Your task to perform on an android device: open a bookmark in the chrome app Image 0: 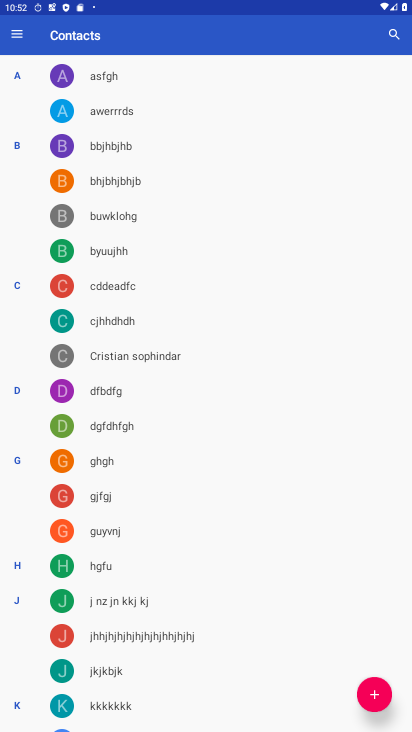
Step 0: press home button
Your task to perform on an android device: open a bookmark in the chrome app Image 1: 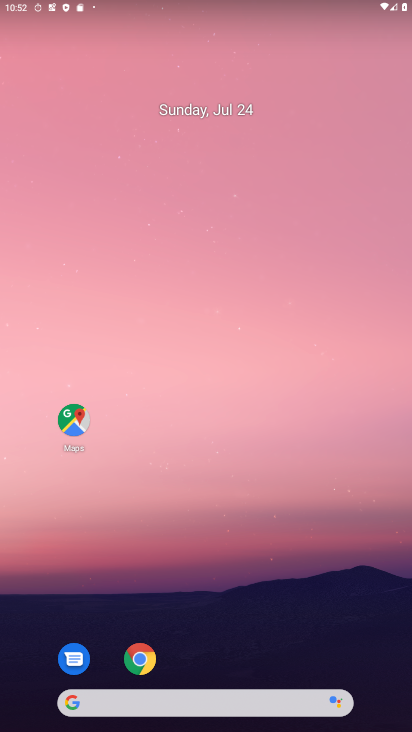
Step 1: click (140, 658)
Your task to perform on an android device: open a bookmark in the chrome app Image 2: 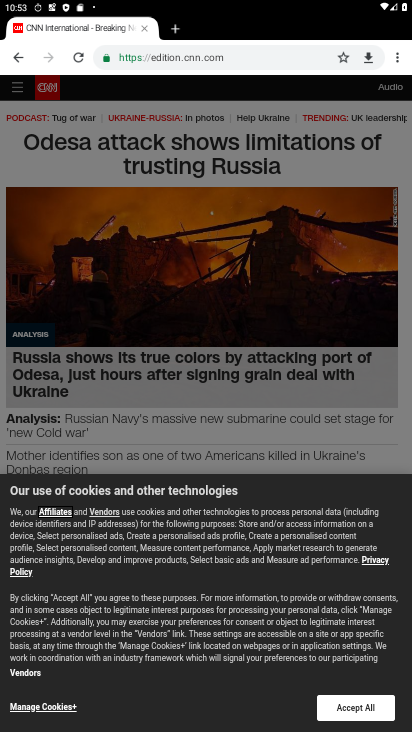
Step 2: click (397, 57)
Your task to perform on an android device: open a bookmark in the chrome app Image 3: 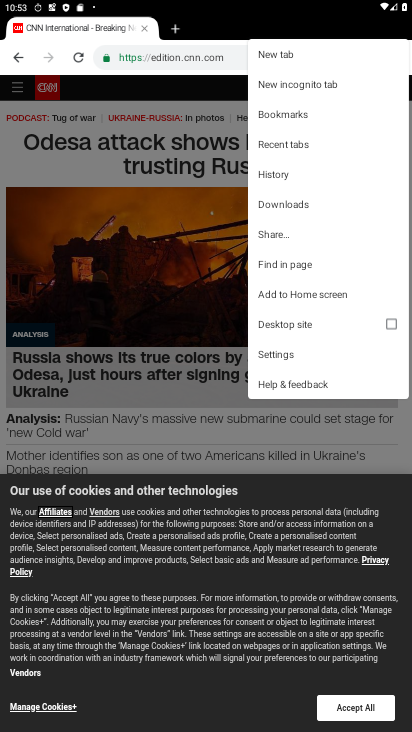
Step 3: click (291, 115)
Your task to perform on an android device: open a bookmark in the chrome app Image 4: 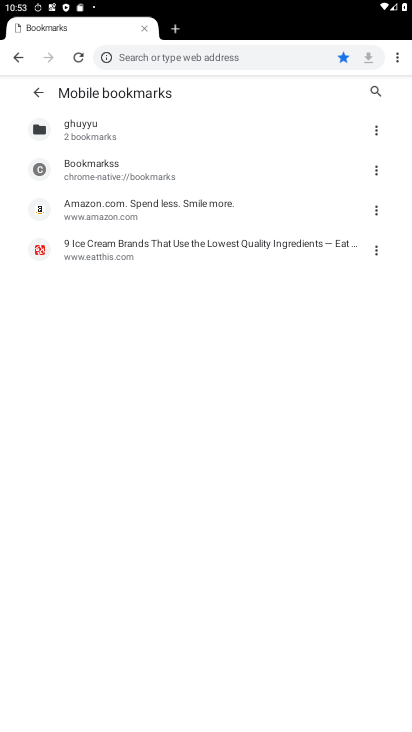
Step 4: task complete